Your task to perform on an android device: see sites visited before in the chrome app Image 0: 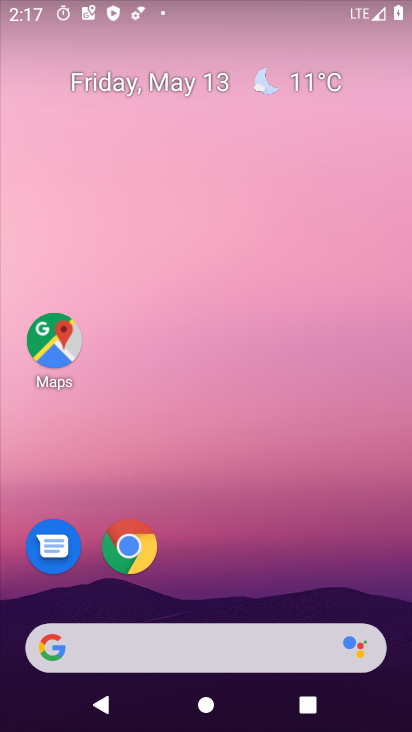
Step 0: drag from (249, 596) to (257, 108)
Your task to perform on an android device: see sites visited before in the chrome app Image 1: 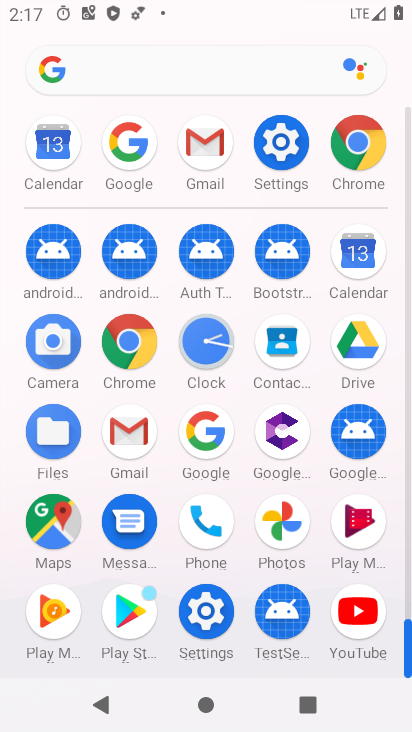
Step 1: click (140, 338)
Your task to perform on an android device: see sites visited before in the chrome app Image 2: 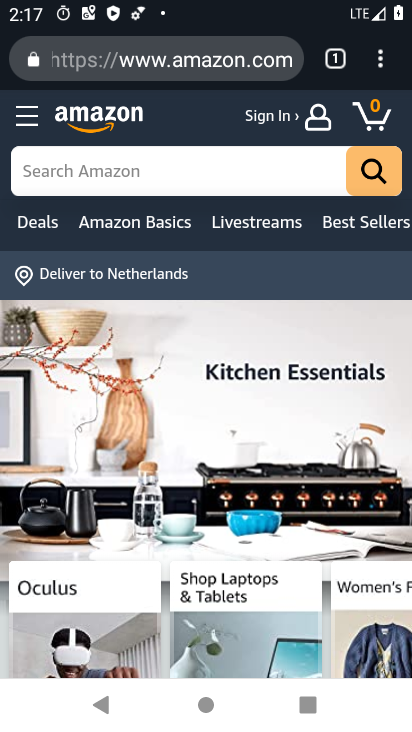
Step 2: click (384, 66)
Your task to perform on an android device: see sites visited before in the chrome app Image 3: 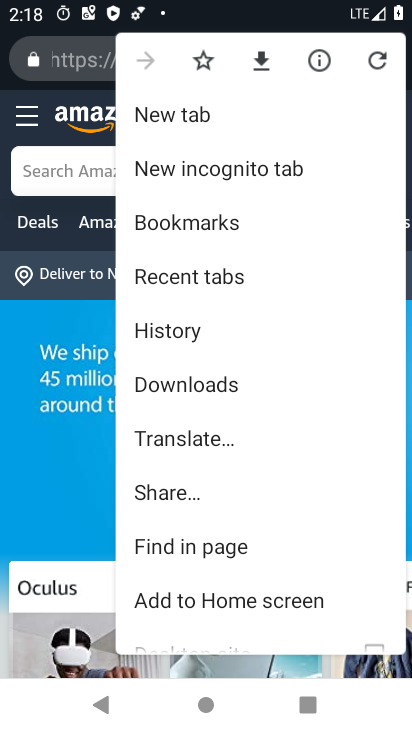
Step 3: click (224, 335)
Your task to perform on an android device: see sites visited before in the chrome app Image 4: 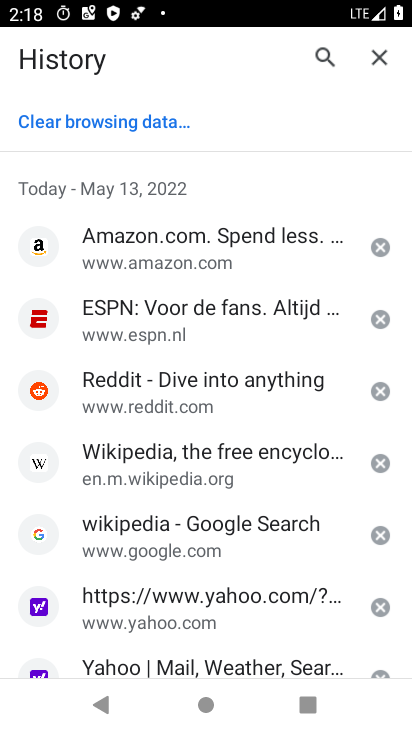
Step 4: task complete